Your task to perform on an android device: set the stopwatch Image 0: 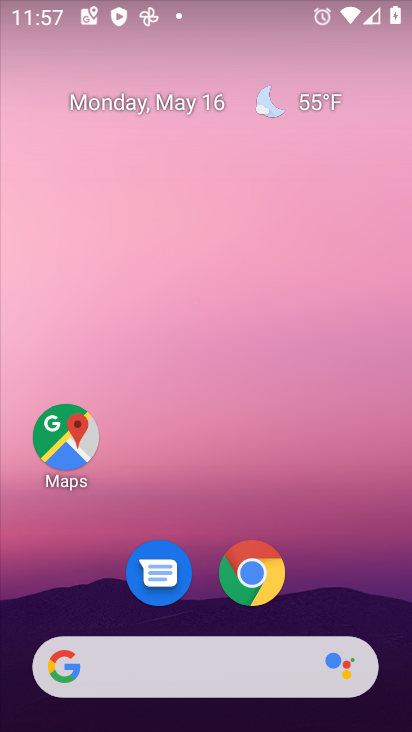
Step 0: drag from (348, 540) to (336, 4)
Your task to perform on an android device: set the stopwatch Image 1: 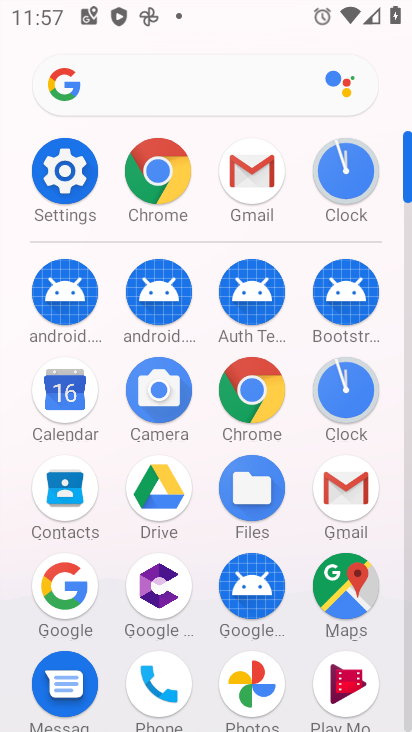
Step 1: click (345, 194)
Your task to perform on an android device: set the stopwatch Image 2: 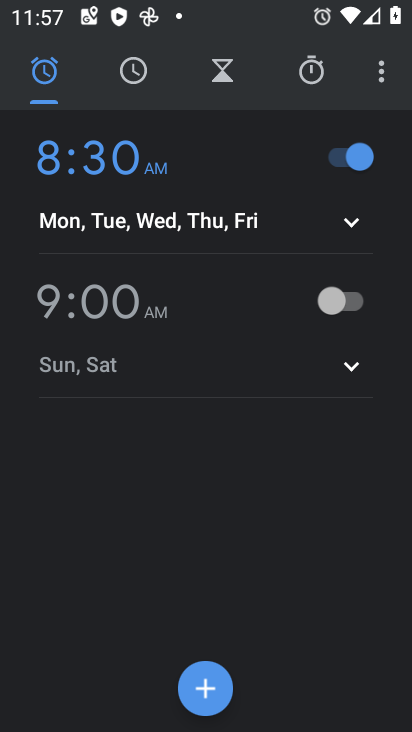
Step 2: click (324, 77)
Your task to perform on an android device: set the stopwatch Image 3: 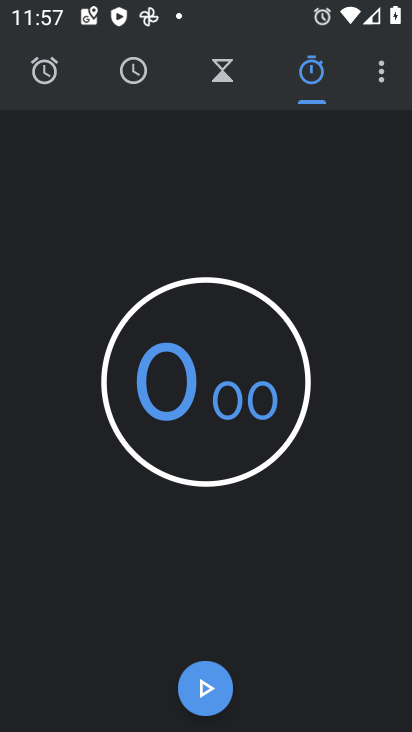
Step 3: task complete